Your task to perform on an android device: Go to Yahoo.com Image 0: 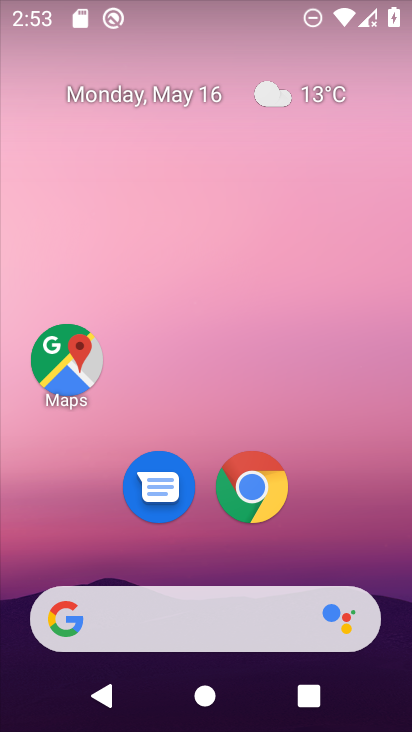
Step 0: click (258, 480)
Your task to perform on an android device: Go to Yahoo.com Image 1: 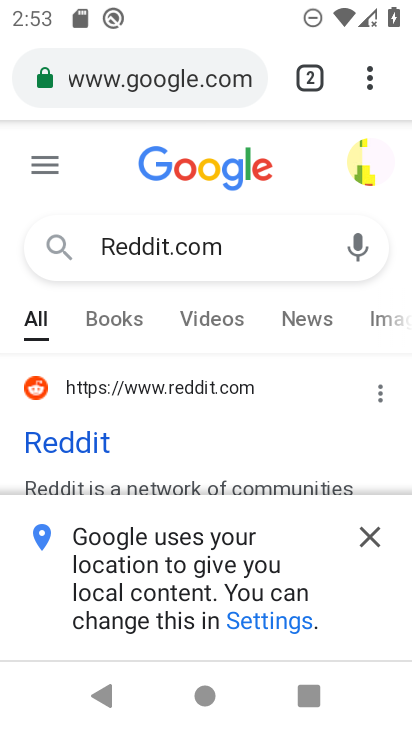
Step 1: click (237, 256)
Your task to perform on an android device: Go to Yahoo.com Image 2: 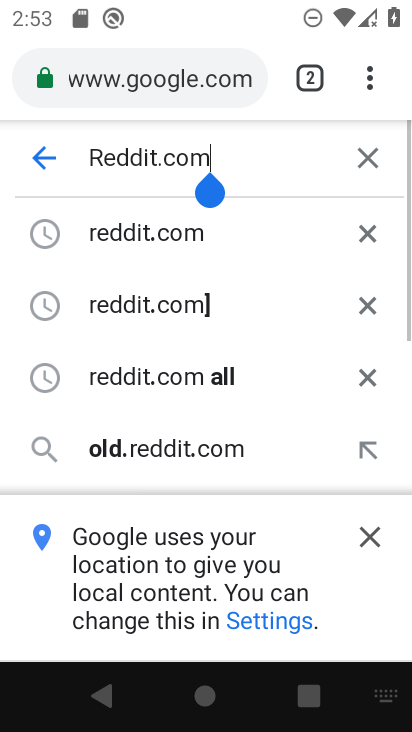
Step 2: click (255, 86)
Your task to perform on an android device: Go to Yahoo.com Image 3: 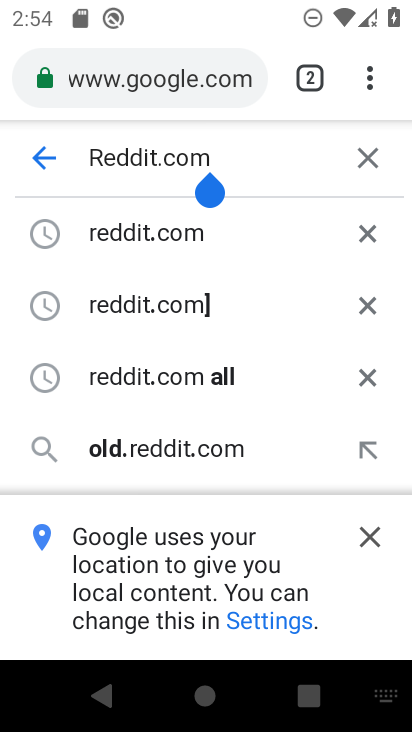
Step 3: click (255, 77)
Your task to perform on an android device: Go to Yahoo.com Image 4: 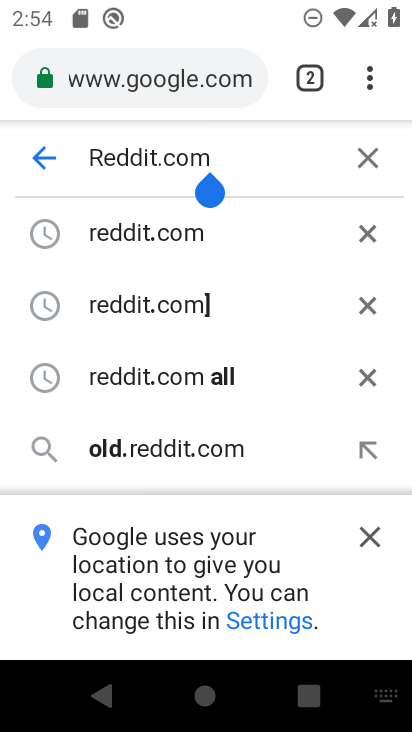
Step 4: click (246, 76)
Your task to perform on an android device: Go to Yahoo.com Image 5: 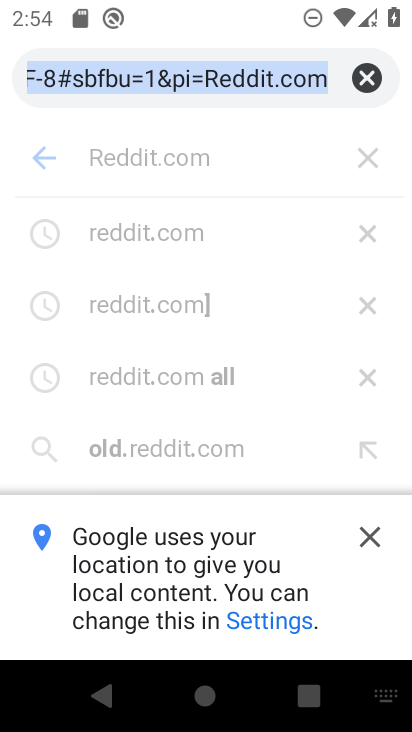
Step 5: click (359, 78)
Your task to perform on an android device: Go to Yahoo.com Image 6: 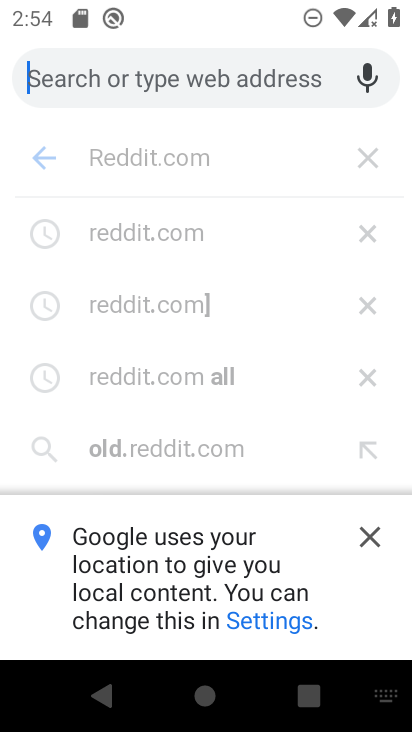
Step 6: type "Yahoo.com"
Your task to perform on an android device: Go to Yahoo.com Image 7: 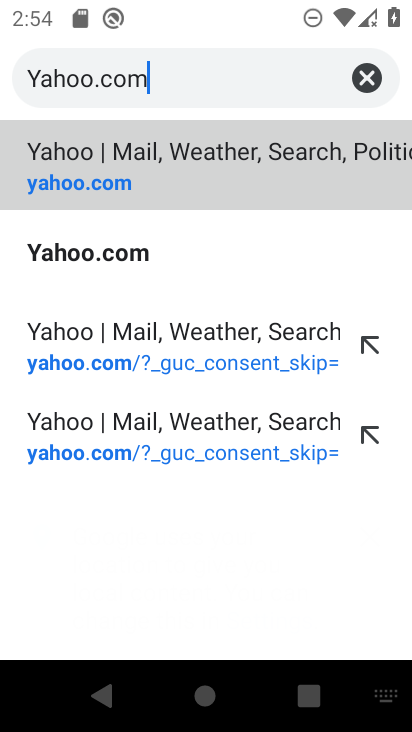
Step 7: click (69, 248)
Your task to perform on an android device: Go to Yahoo.com Image 8: 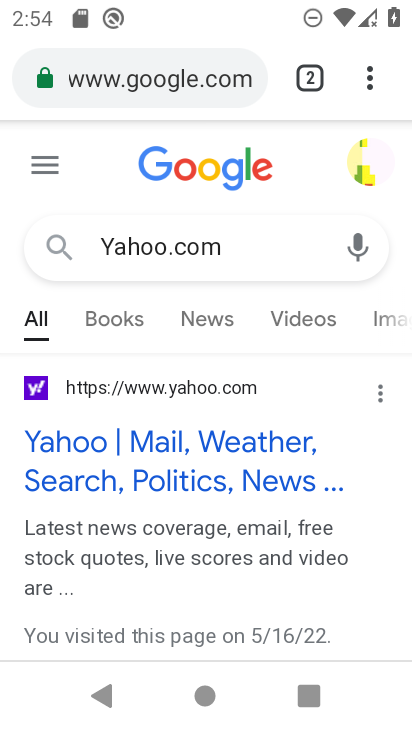
Step 8: task complete